Your task to perform on an android device: delete browsing data in the chrome app Image 0: 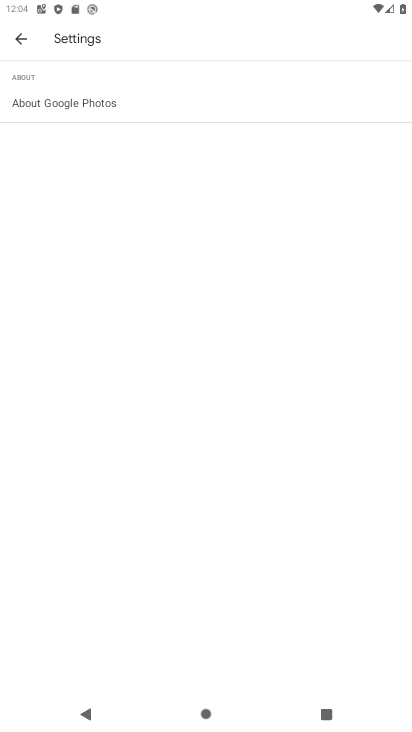
Step 0: press back button
Your task to perform on an android device: delete browsing data in the chrome app Image 1: 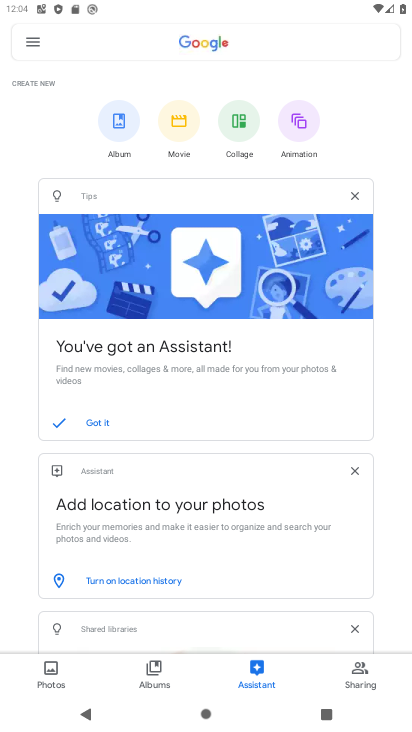
Step 1: press back button
Your task to perform on an android device: delete browsing data in the chrome app Image 2: 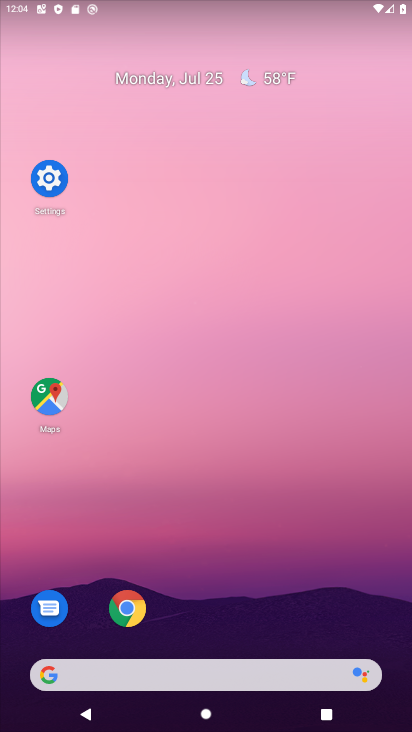
Step 2: click (134, 598)
Your task to perform on an android device: delete browsing data in the chrome app Image 3: 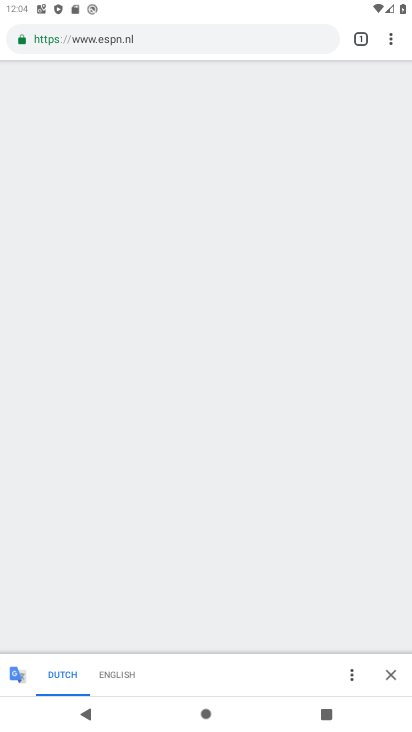
Step 3: click (392, 41)
Your task to perform on an android device: delete browsing data in the chrome app Image 4: 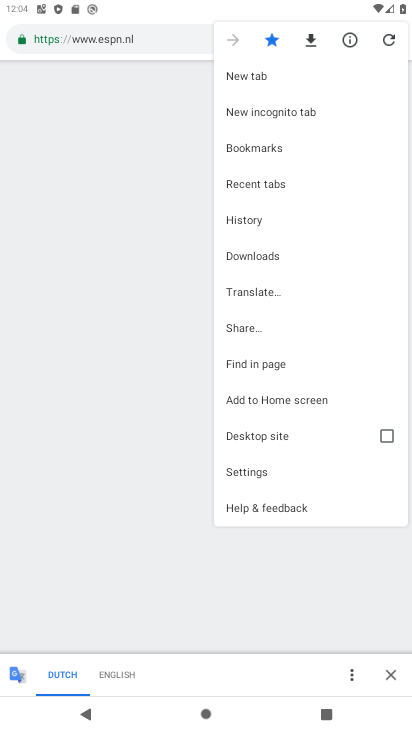
Step 4: click (257, 464)
Your task to perform on an android device: delete browsing data in the chrome app Image 5: 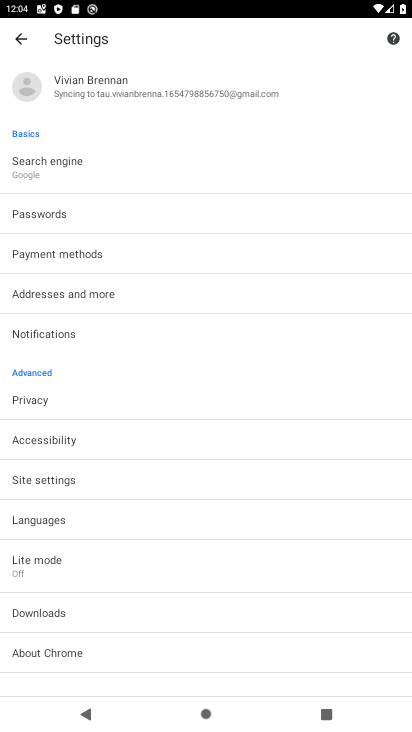
Step 5: drag from (255, 465) to (256, 173)
Your task to perform on an android device: delete browsing data in the chrome app Image 6: 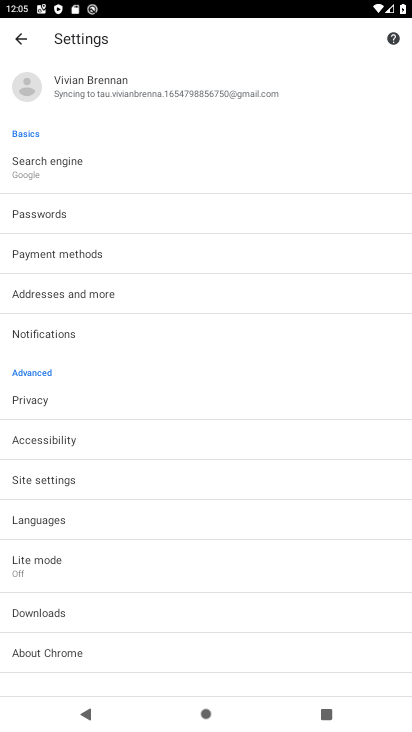
Step 6: click (56, 396)
Your task to perform on an android device: delete browsing data in the chrome app Image 7: 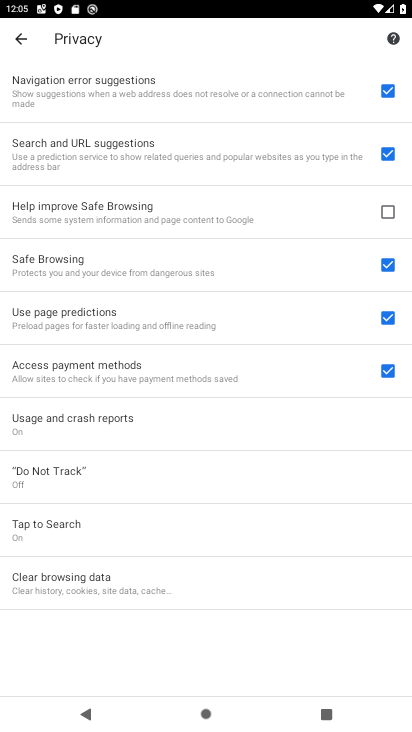
Step 7: click (172, 591)
Your task to perform on an android device: delete browsing data in the chrome app Image 8: 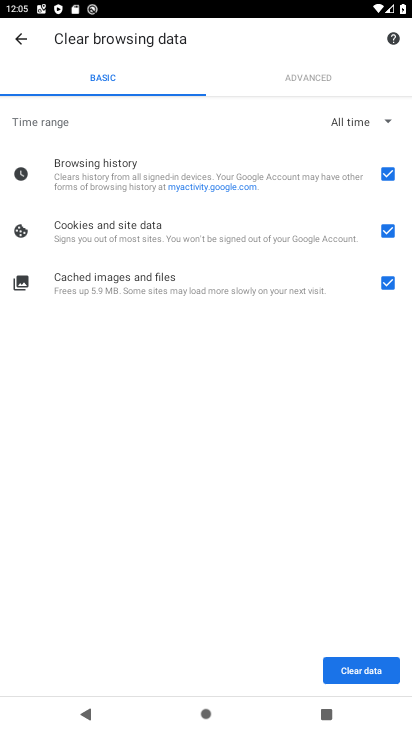
Step 8: click (357, 683)
Your task to perform on an android device: delete browsing data in the chrome app Image 9: 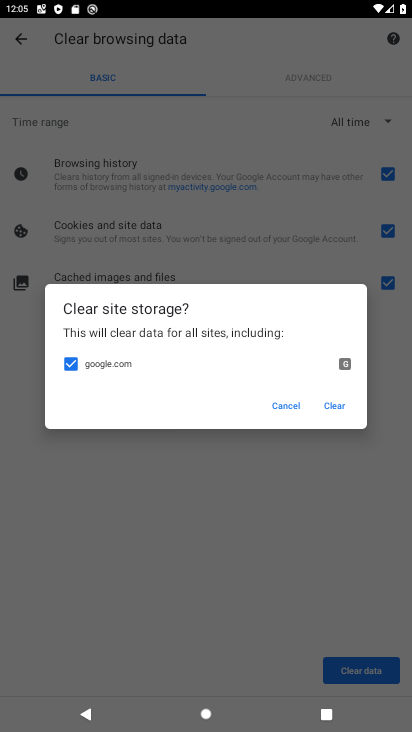
Step 9: click (335, 401)
Your task to perform on an android device: delete browsing data in the chrome app Image 10: 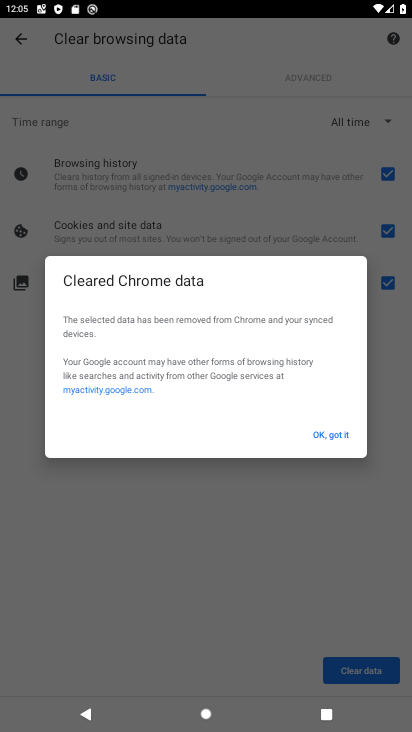
Step 10: click (322, 432)
Your task to perform on an android device: delete browsing data in the chrome app Image 11: 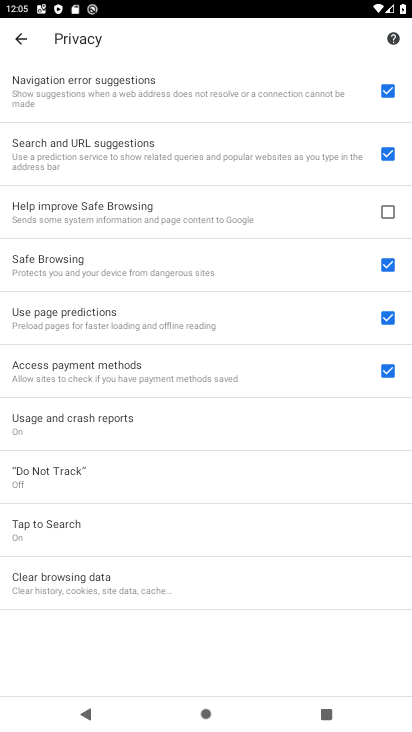
Step 11: task complete